Your task to perform on an android device: empty trash in the gmail app Image 0: 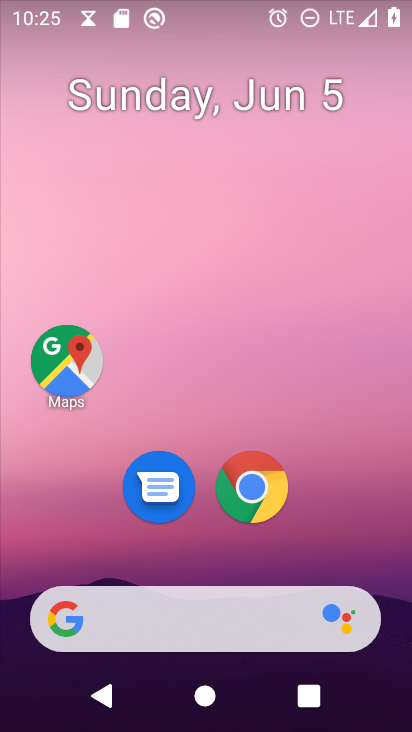
Step 0: click (285, 207)
Your task to perform on an android device: empty trash in the gmail app Image 1: 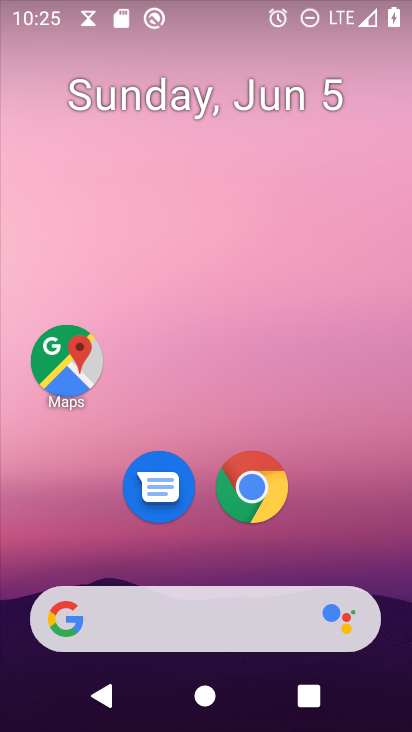
Step 1: drag from (193, 554) to (236, 195)
Your task to perform on an android device: empty trash in the gmail app Image 2: 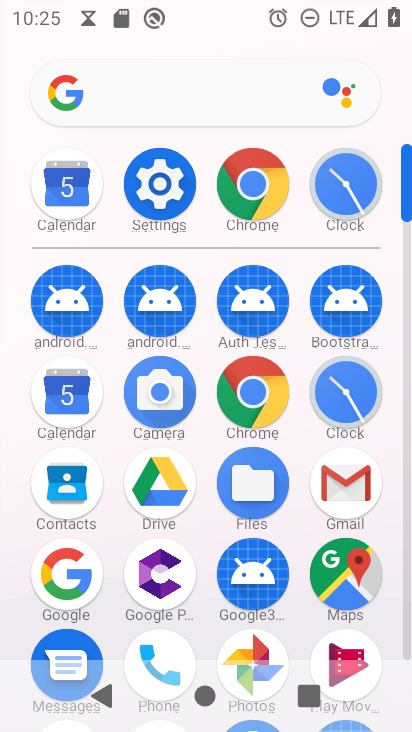
Step 2: click (343, 476)
Your task to perform on an android device: empty trash in the gmail app Image 3: 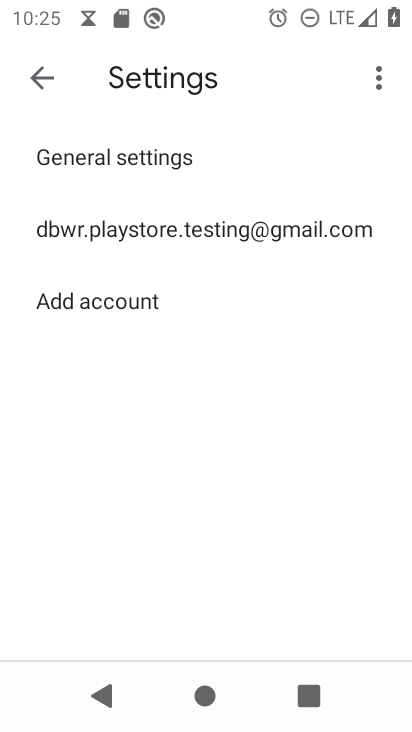
Step 3: click (135, 222)
Your task to perform on an android device: empty trash in the gmail app Image 4: 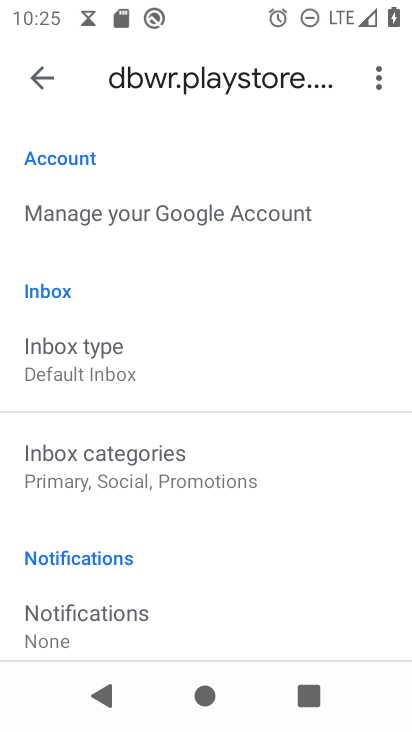
Step 4: drag from (181, 502) to (202, 230)
Your task to perform on an android device: empty trash in the gmail app Image 5: 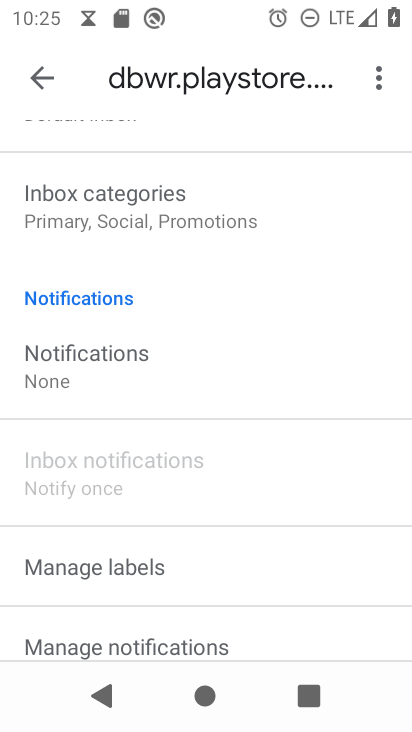
Step 5: drag from (116, 501) to (169, 174)
Your task to perform on an android device: empty trash in the gmail app Image 6: 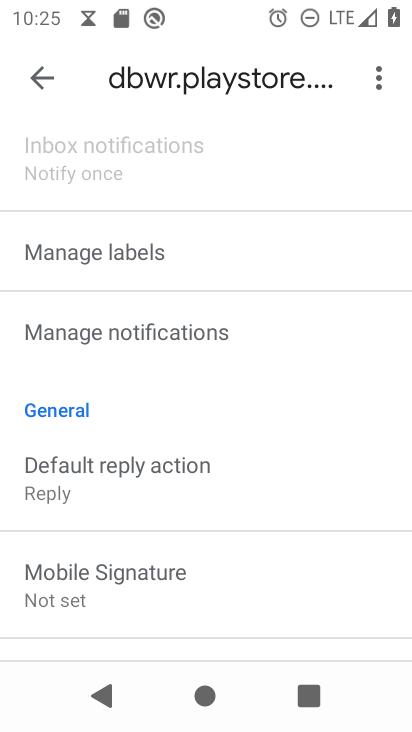
Step 6: click (22, 72)
Your task to perform on an android device: empty trash in the gmail app Image 7: 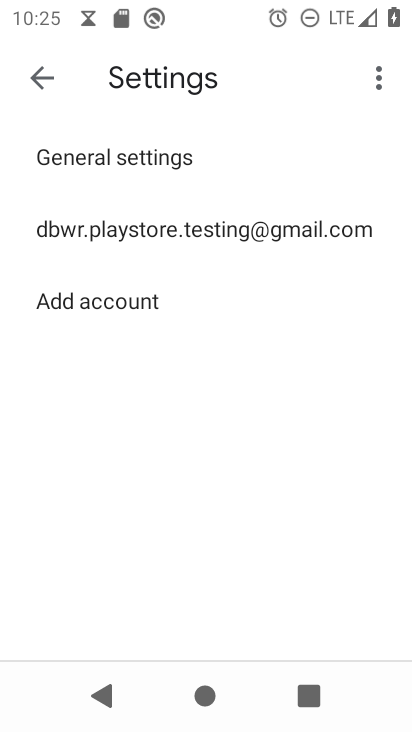
Step 7: click (22, 72)
Your task to perform on an android device: empty trash in the gmail app Image 8: 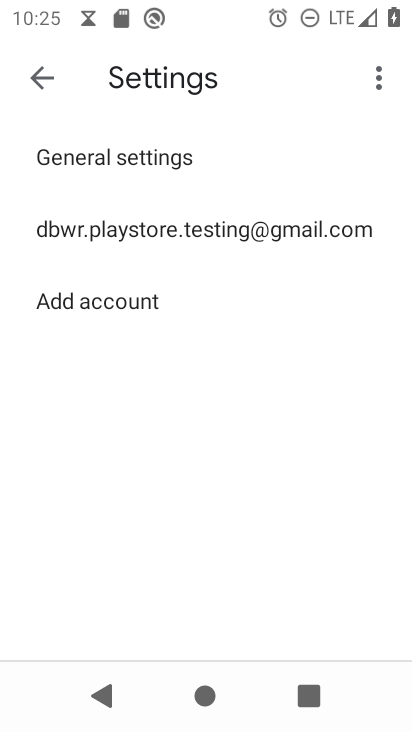
Step 8: click (44, 72)
Your task to perform on an android device: empty trash in the gmail app Image 9: 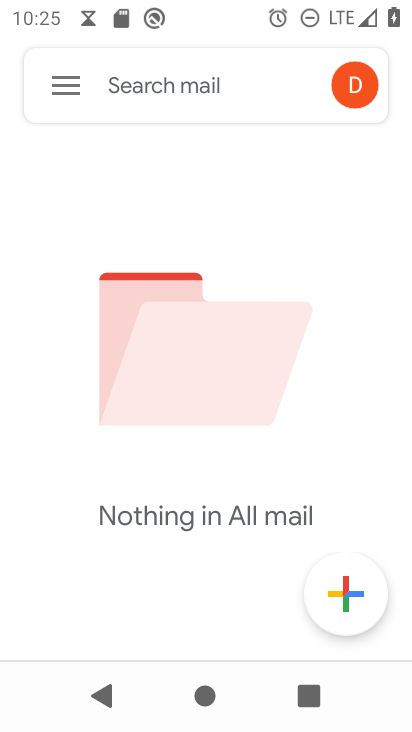
Step 9: click (65, 84)
Your task to perform on an android device: empty trash in the gmail app Image 10: 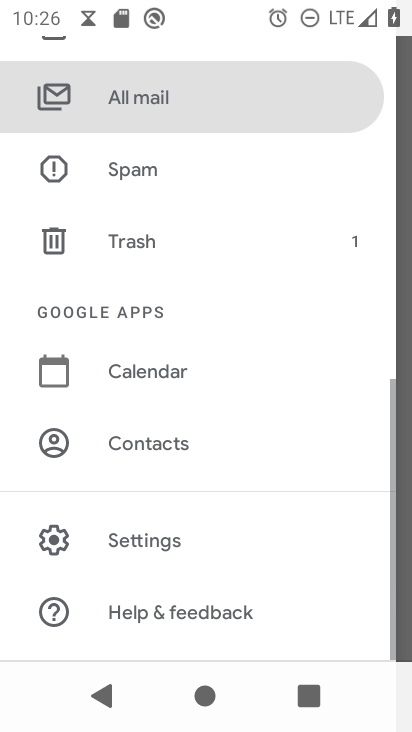
Step 10: click (161, 232)
Your task to perform on an android device: empty trash in the gmail app Image 11: 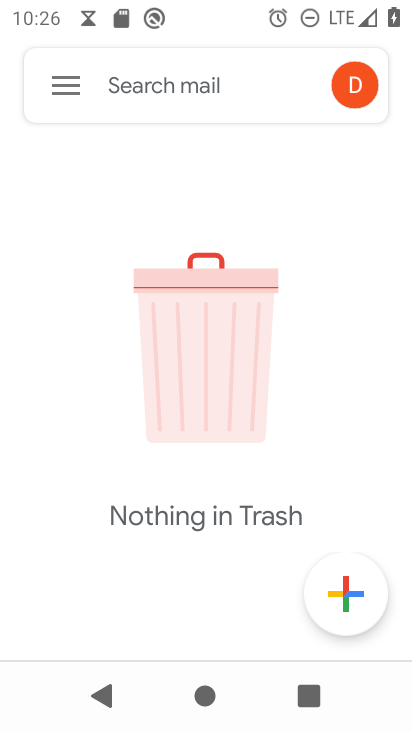
Step 11: task complete